Your task to perform on an android device: change notification settings in the gmail app Image 0: 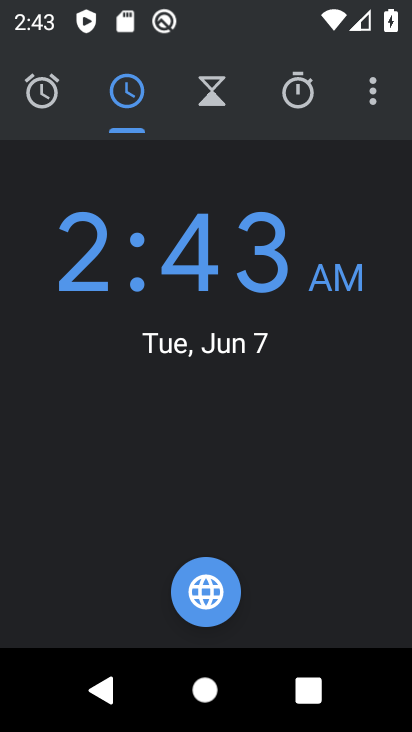
Step 0: press home button
Your task to perform on an android device: change notification settings in the gmail app Image 1: 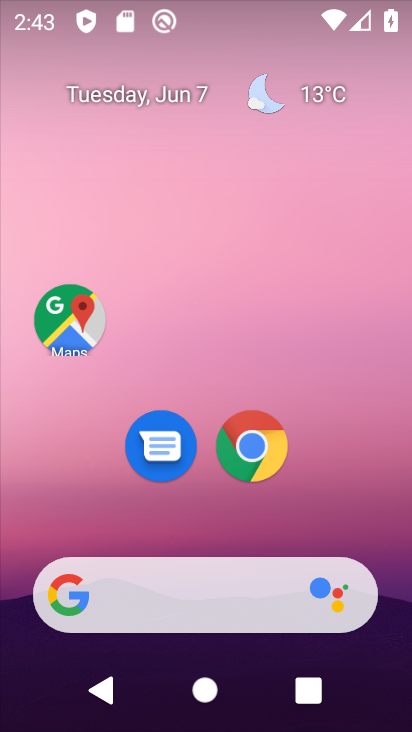
Step 1: drag from (153, 518) to (208, 0)
Your task to perform on an android device: change notification settings in the gmail app Image 2: 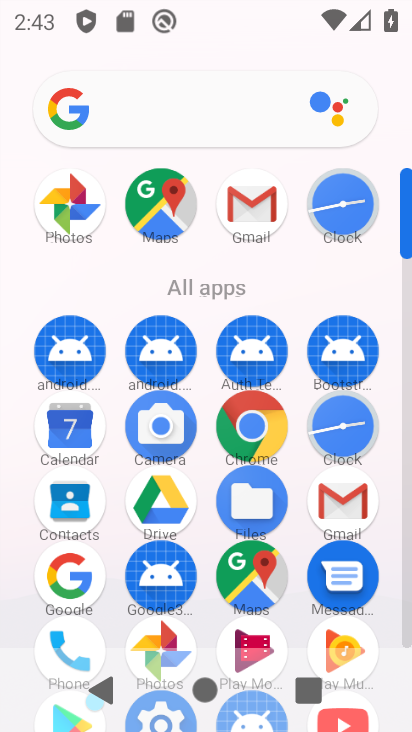
Step 2: click (324, 499)
Your task to perform on an android device: change notification settings in the gmail app Image 3: 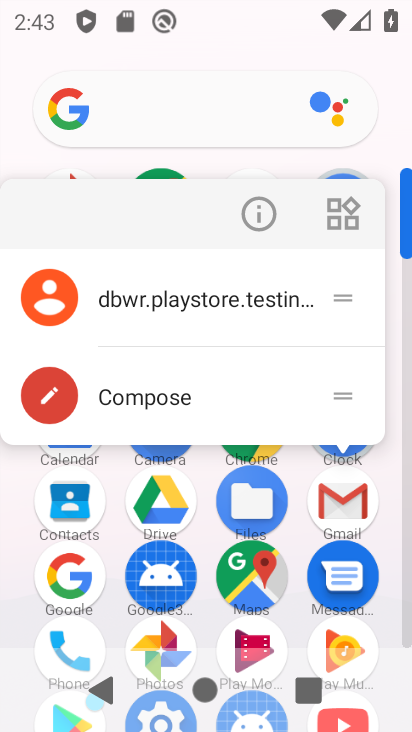
Step 3: click (360, 502)
Your task to perform on an android device: change notification settings in the gmail app Image 4: 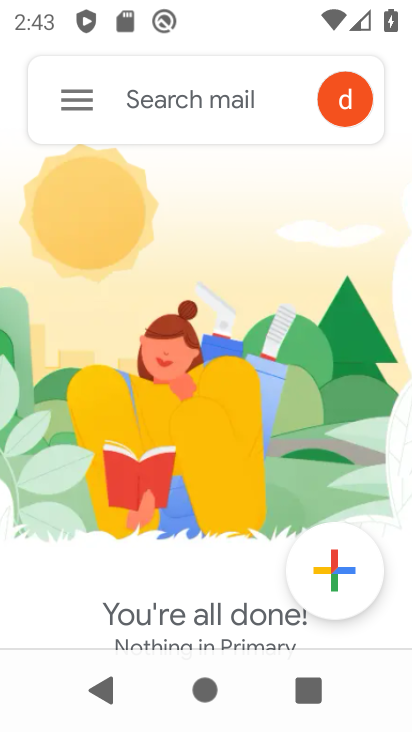
Step 4: click (63, 92)
Your task to perform on an android device: change notification settings in the gmail app Image 5: 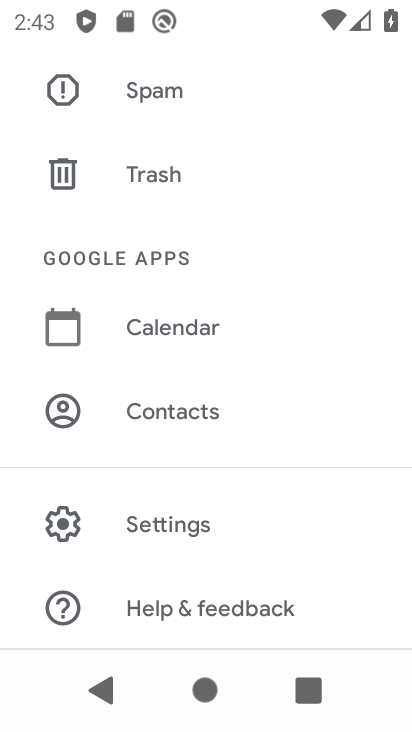
Step 5: click (153, 523)
Your task to perform on an android device: change notification settings in the gmail app Image 6: 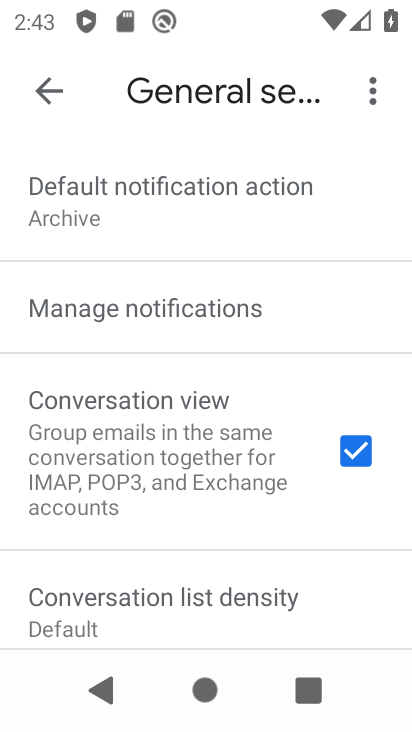
Step 6: click (167, 328)
Your task to perform on an android device: change notification settings in the gmail app Image 7: 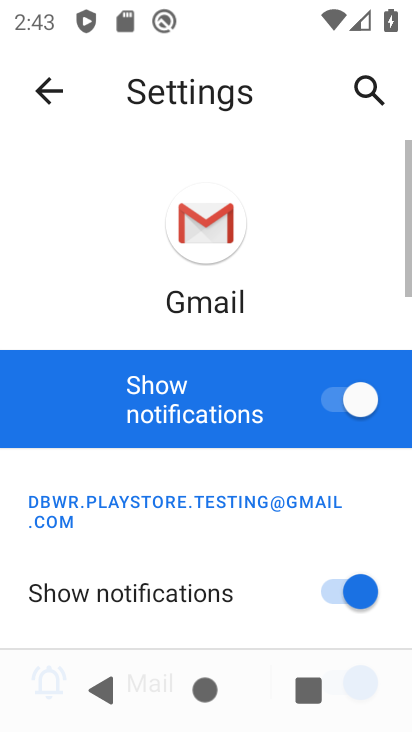
Step 7: click (324, 394)
Your task to perform on an android device: change notification settings in the gmail app Image 8: 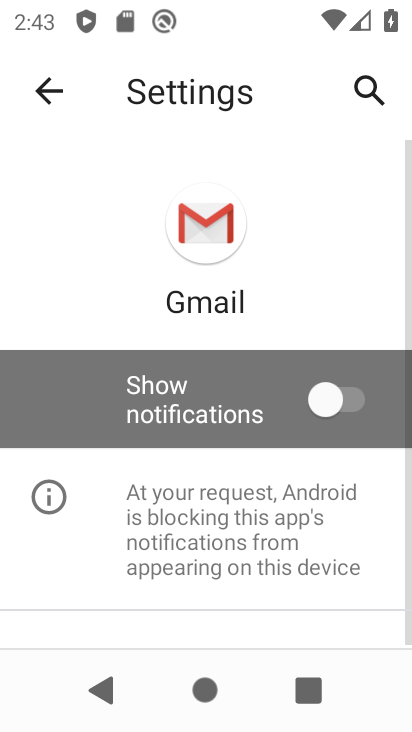
Step 8: task complete